Your task to perform on an android device: How much does the HisenseTV cost? Image 0: 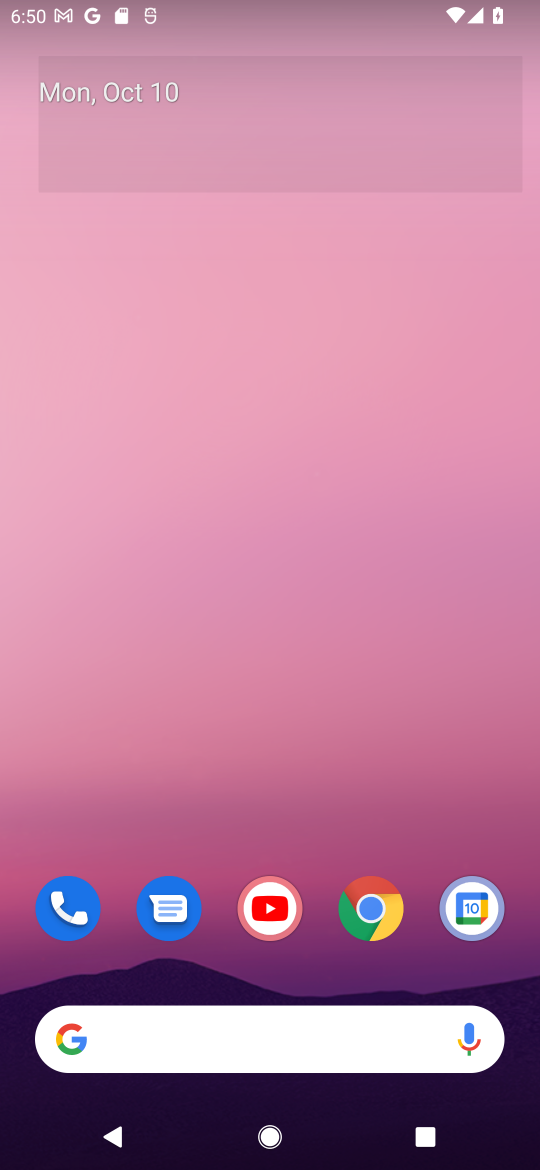
Step 0: drag from (300, 967) to (338, 27)
Your task to perform on an android device: How much does the HisenseTV cost? Image 1: 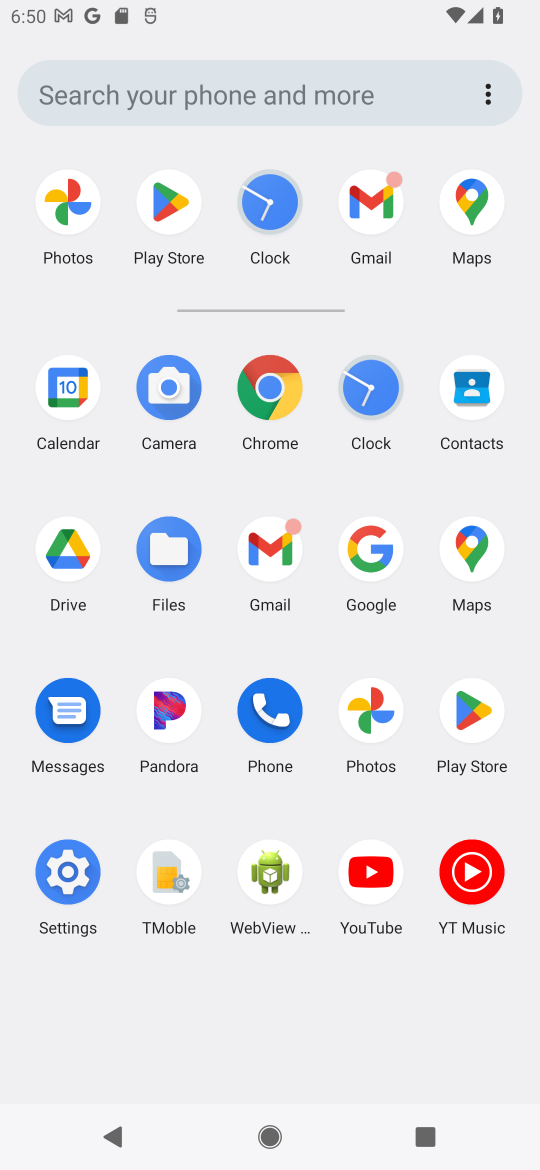
Step 1: click (267, 400)
Your task to perform on an android device: How much does the HisenseTV cost? Image 2: 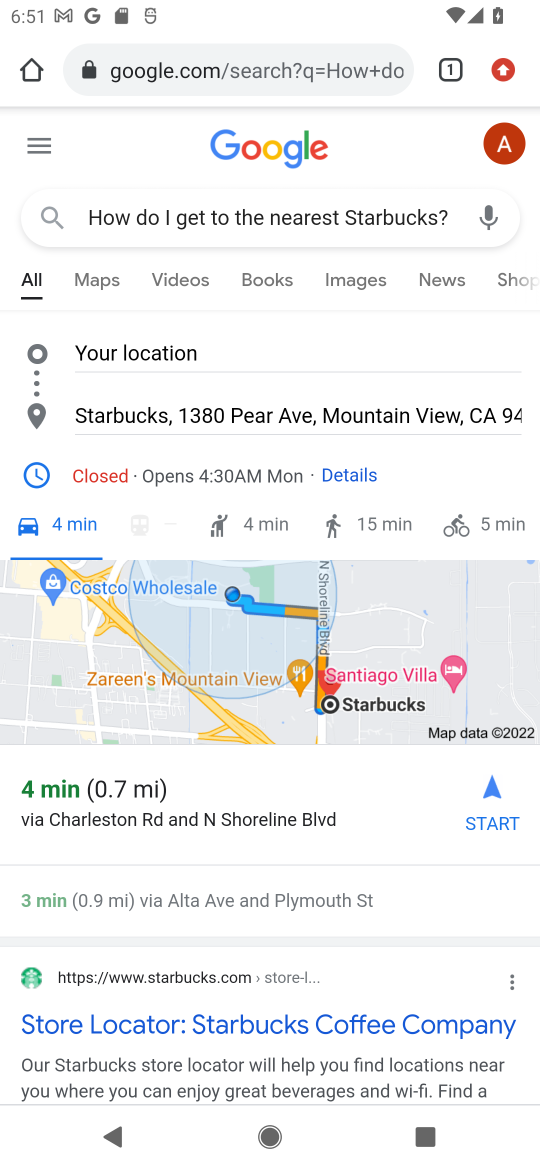
Step 2: click (209, 82)
Your task to perform on an android device: How much does the HisenseTV cost? Image 3: 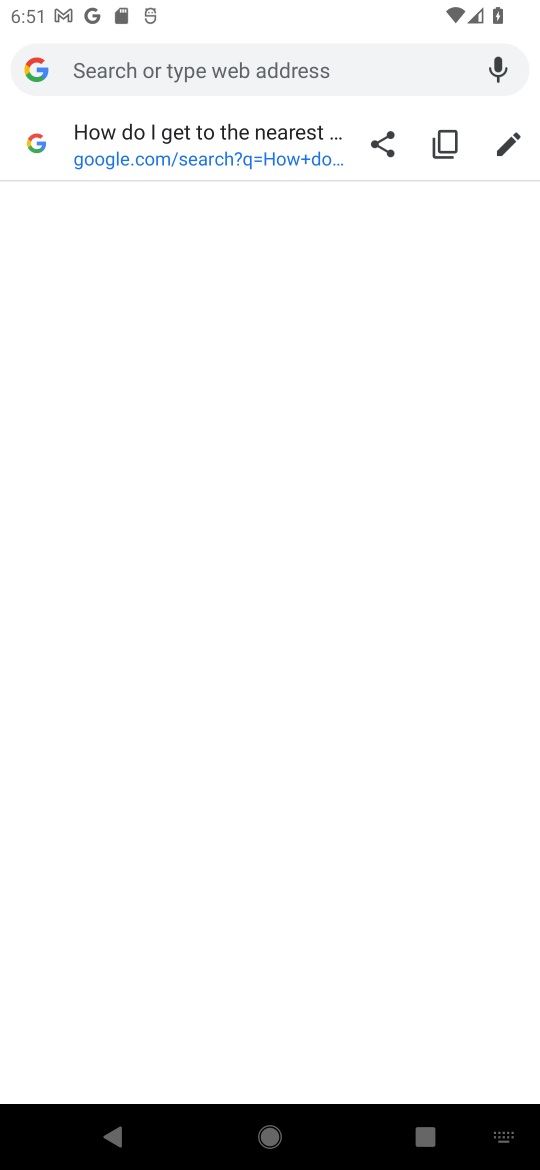
Step 3: type "How much does the HisenseTV cost?"
Your task to perform on an android device: How much does the HisenseTV cost? Image 4: 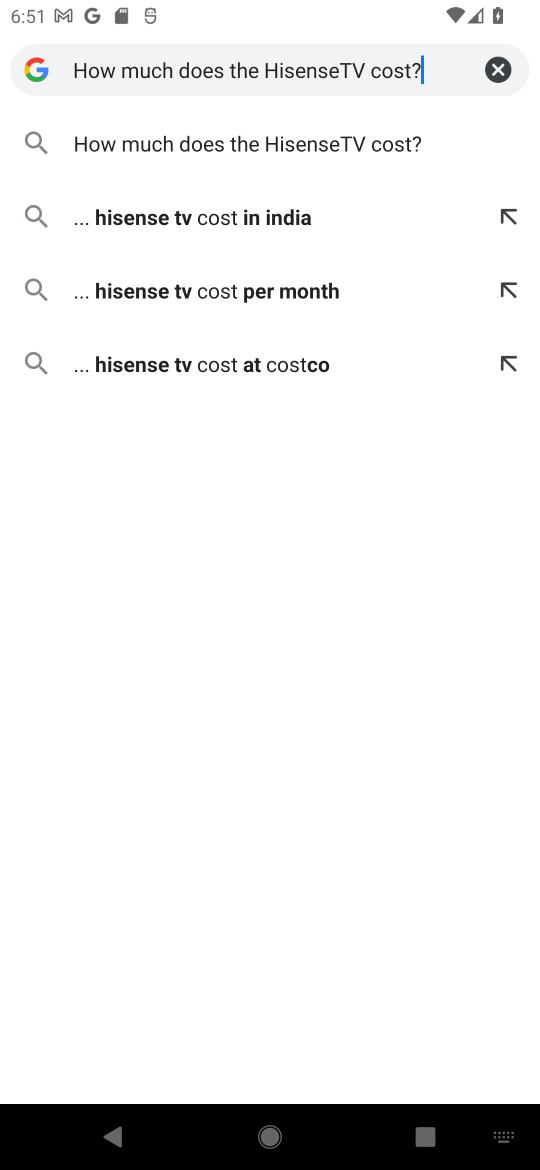
Step 4: press enter
Your task to perform on an android device: How much does the HisenseTV cost? Image 5: 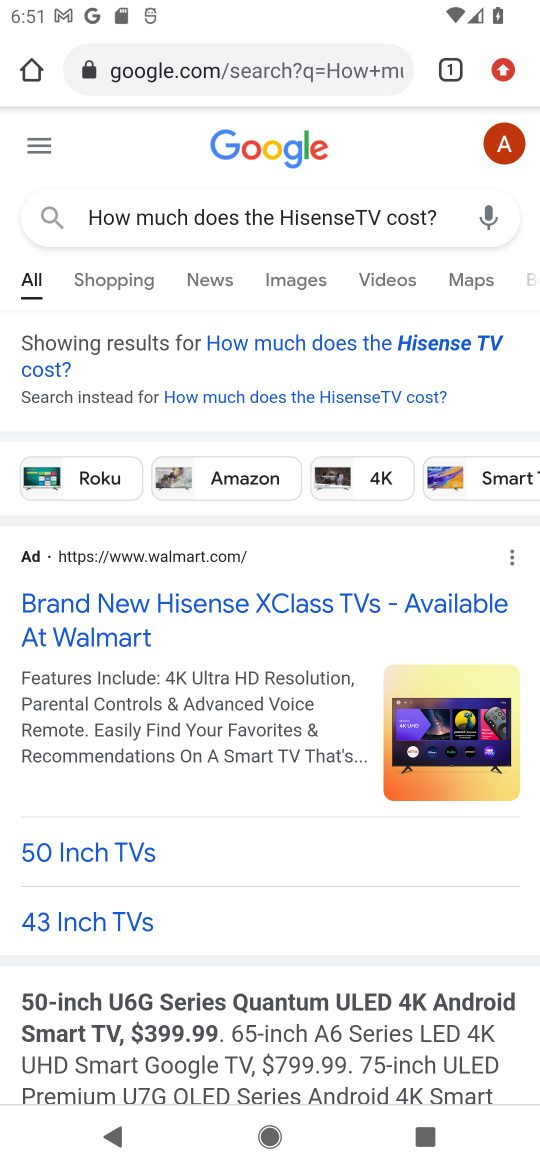
Step 5: task complete